Your task to perform on an android device: turn off translation in the chrome app Image 0: 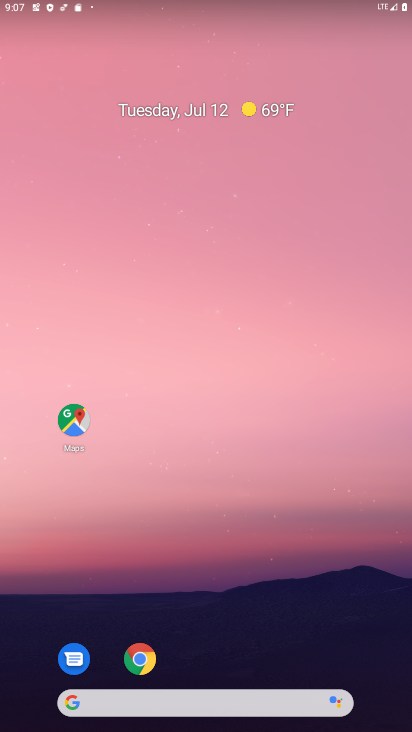
Step 0: click (145, 657)
Your task to perform on an android device: turn off translation in the chrome app Image 1: 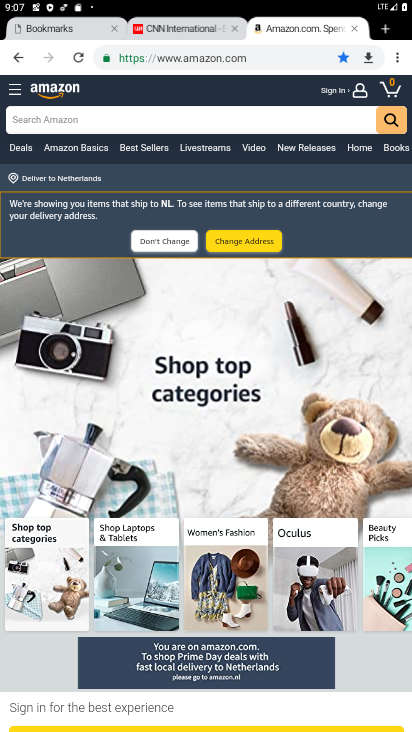
Step 1: click (397, 59)
Your task to perform on an android device: turn off translation in the chrome app Image 2: 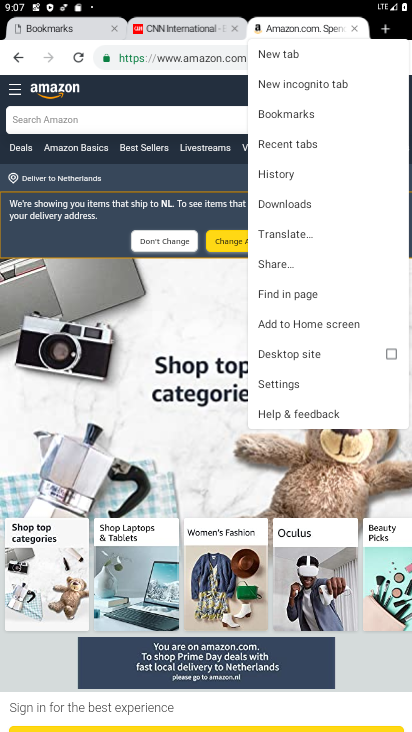
Step 2: click (276, 385)
Your task to perform on an android device: turn off translation in the chrome app Image 3: 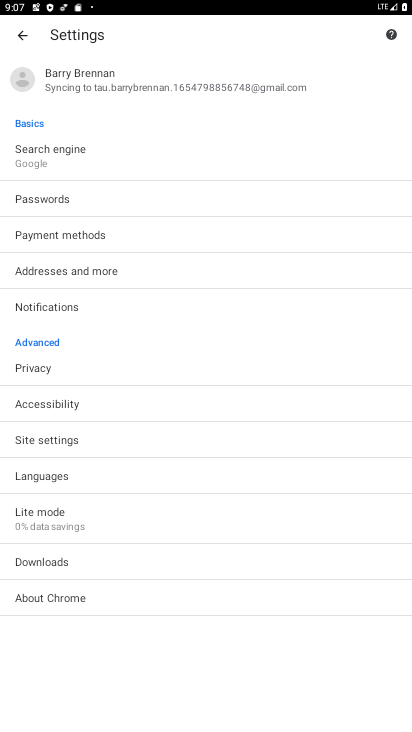
Step 3: click (50, 478)
Your task to perform on an android device: turn off translation in the chrome app Image 4: 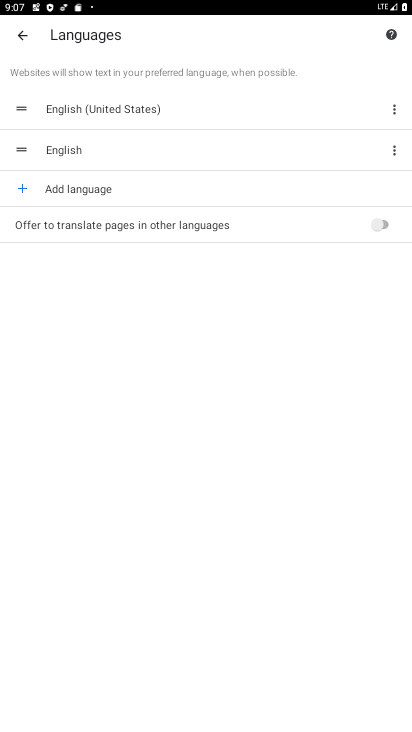
Step 4: task complete